Your task to perform on an android device: turn pop-ups off in chrome Image 0: 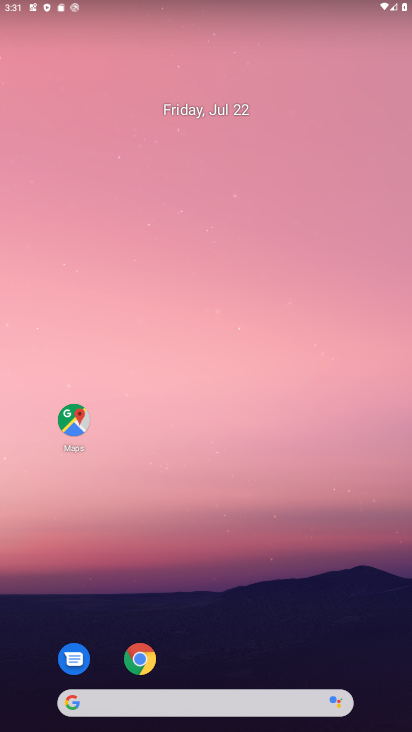
Step 0: click (148, 654)
Your task to perform on an android device: turn pop-ups off in chrome Image 1: 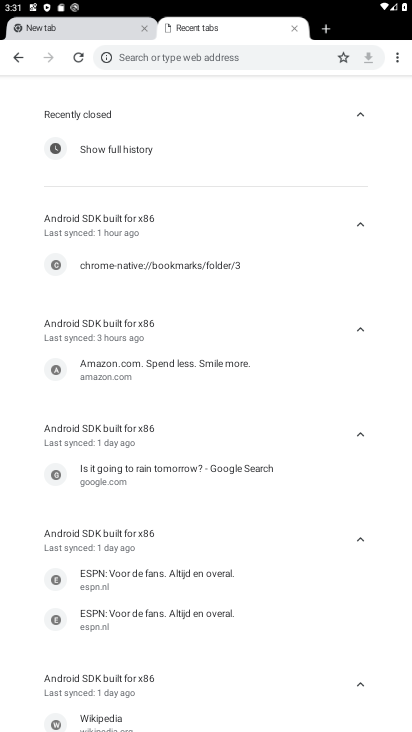
Step 1: click (405, 59)
Your task to perform on an android device: turn pop-ups off in chrome Image 2: 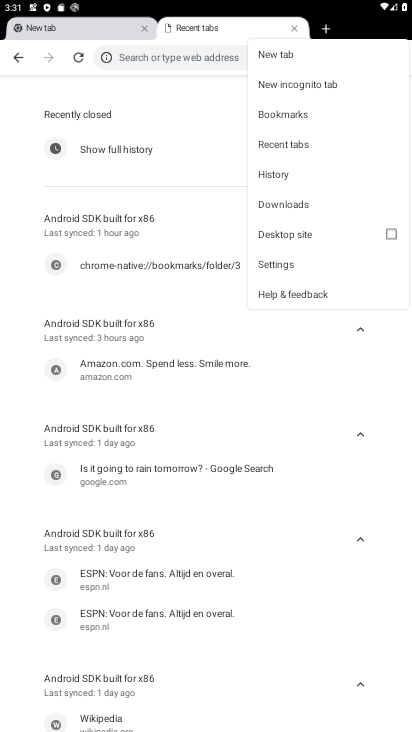
Step 2: click (273, 273)
Your task to perform on an android device: turn pop-ups off in chrome Image 3: 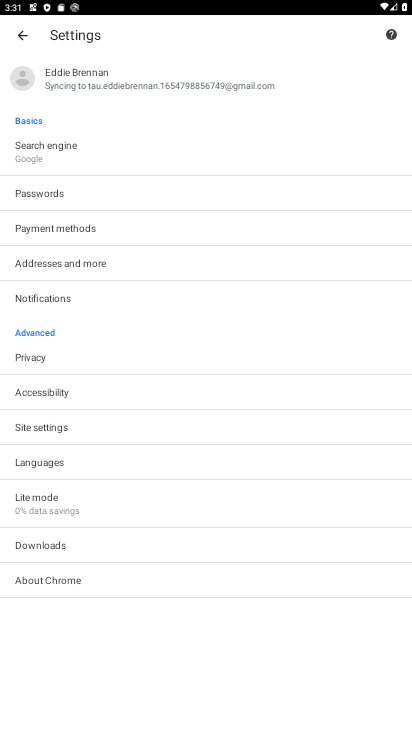
Step 3: click (79, 423)
Your task to perform on an android device: turn pop-ups off in chrome Image 4: 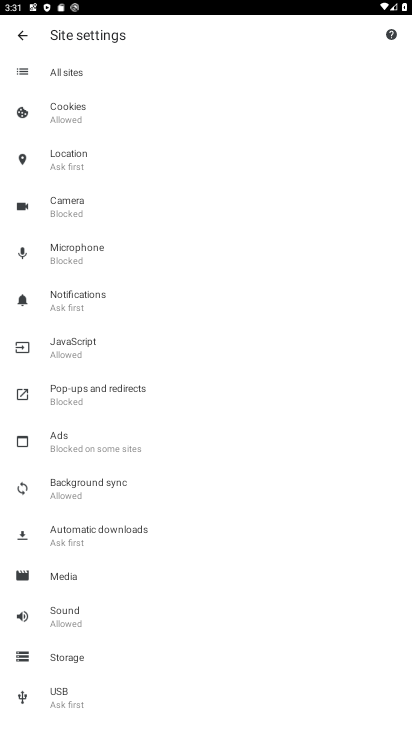
Step 4: click (58, 390)
Your task to perform on an android device: turn pop-ups off in chrome Image 5: 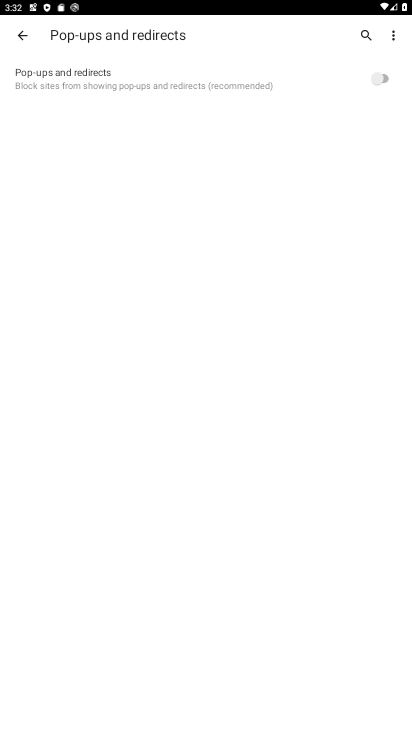
Step 5: task complete